Your task to perform on an android device: check the backup settings in the google photos Image 0: 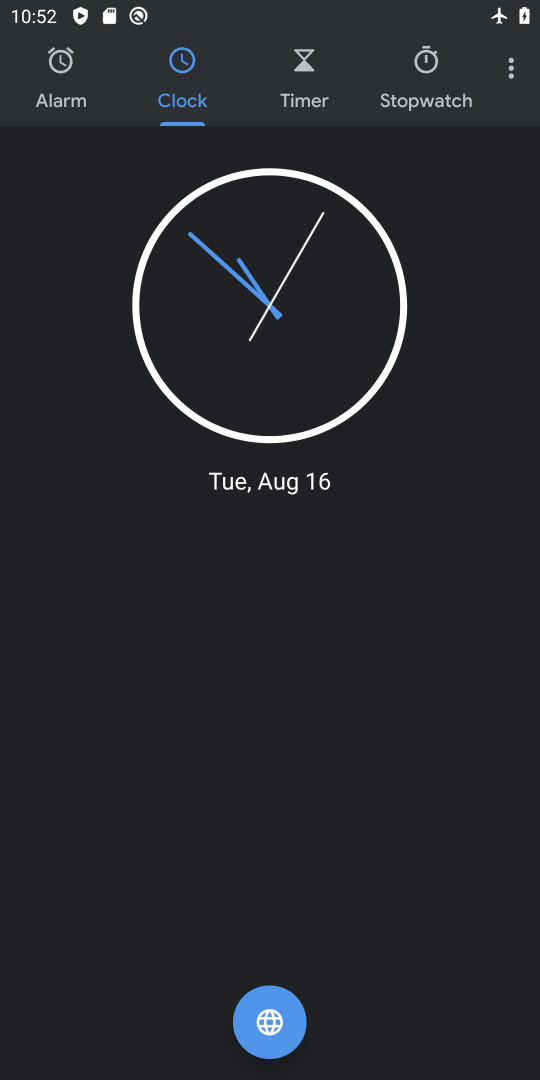
Step 0: press home button
Your task to perform on an android device: check the backup settings in the google photos Image 1: 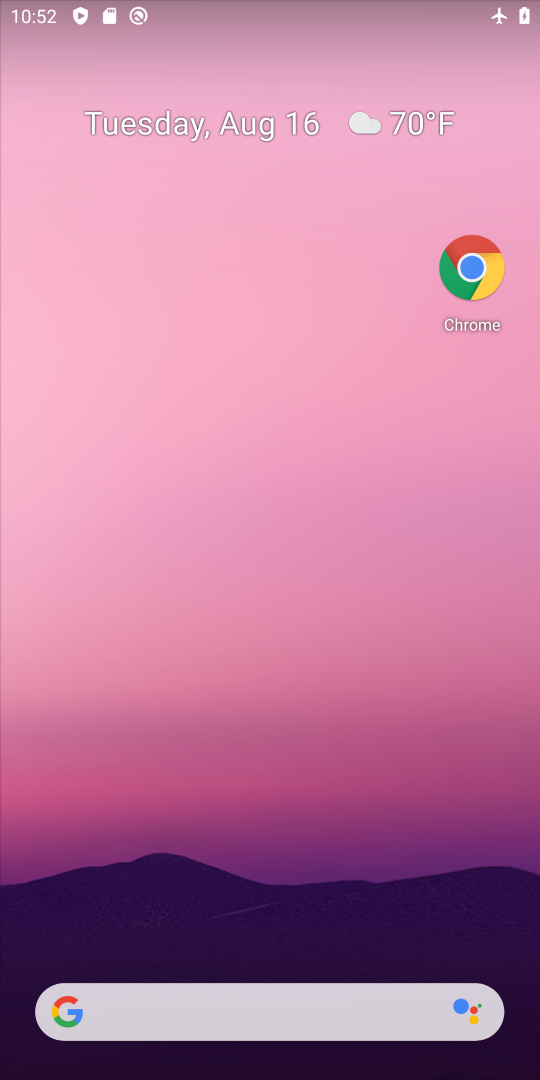
Step 1: drag from (295, 920) to (324, 222)
Your task to perform on an android device: check the backup settings in the google photos Image 2: 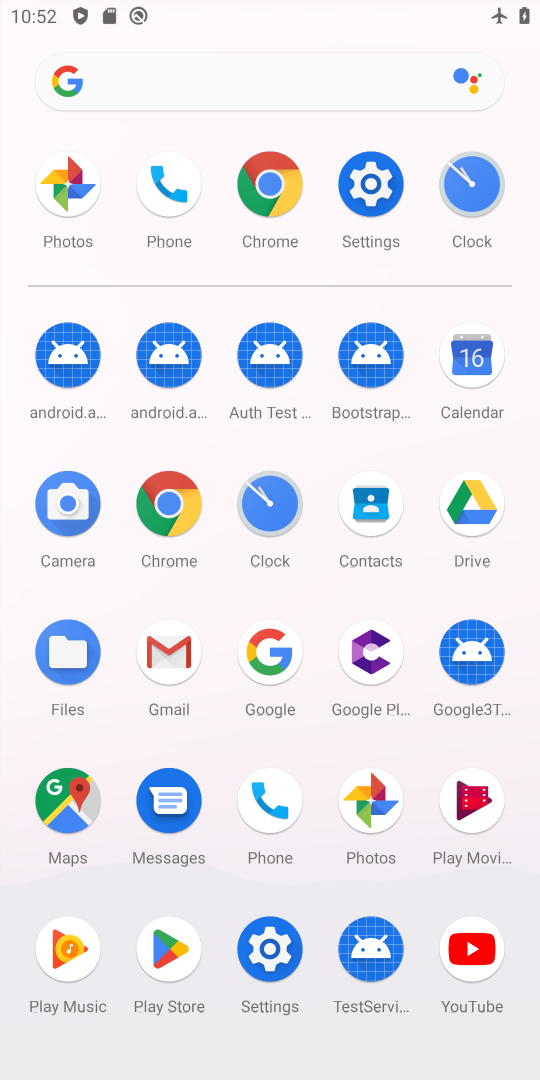
Step 2: click (373, 796)
Your task to perform on an android device: check the backup settings in the google photos Image 3: 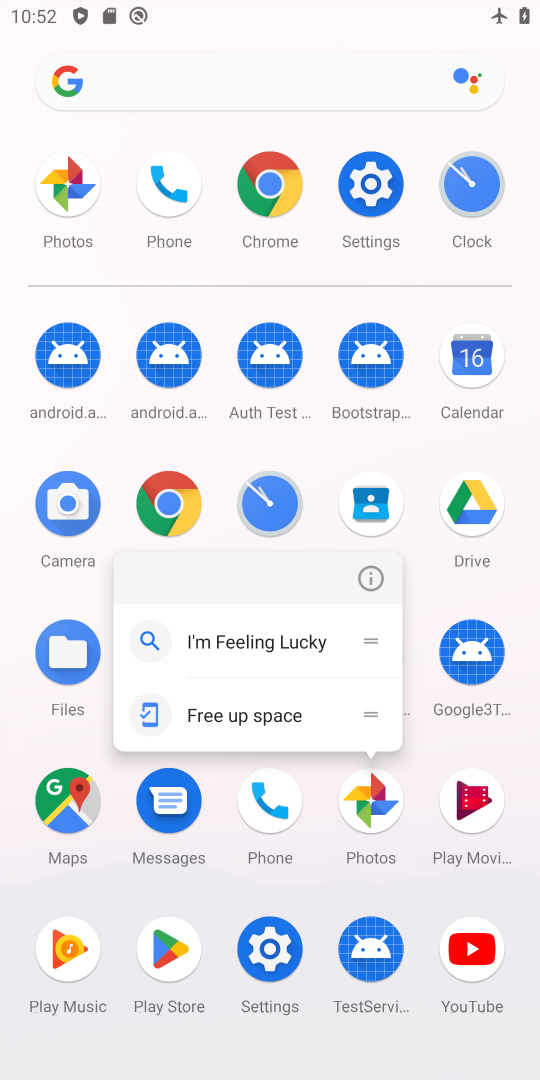
Step 3: click (373, 802)
Your task to perform on an android device: check the backup settings in the google photos Image 4: 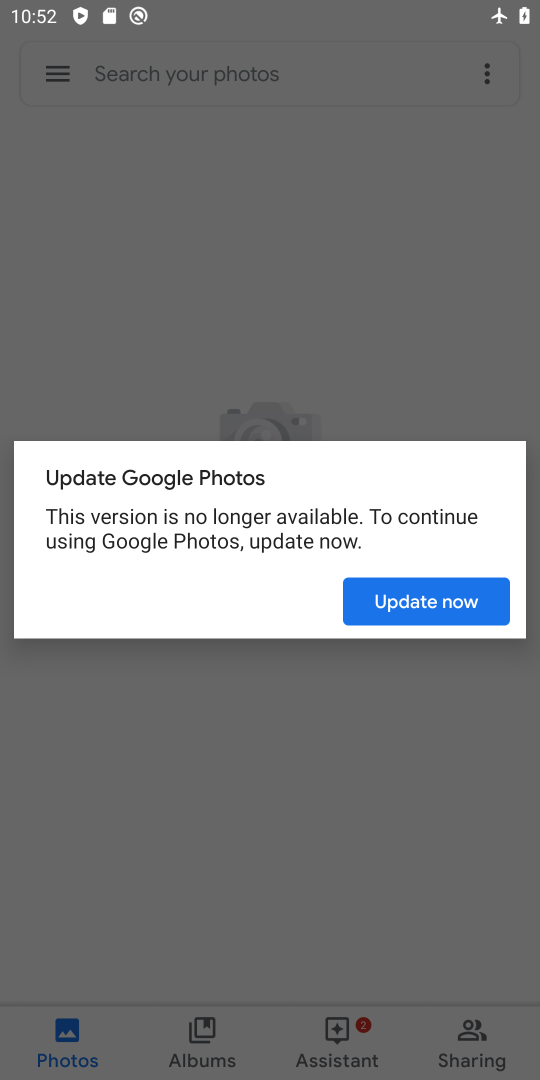
Step 4: press home button
Your task to perform on an android device: check the backup settings in the google photos Image 5: 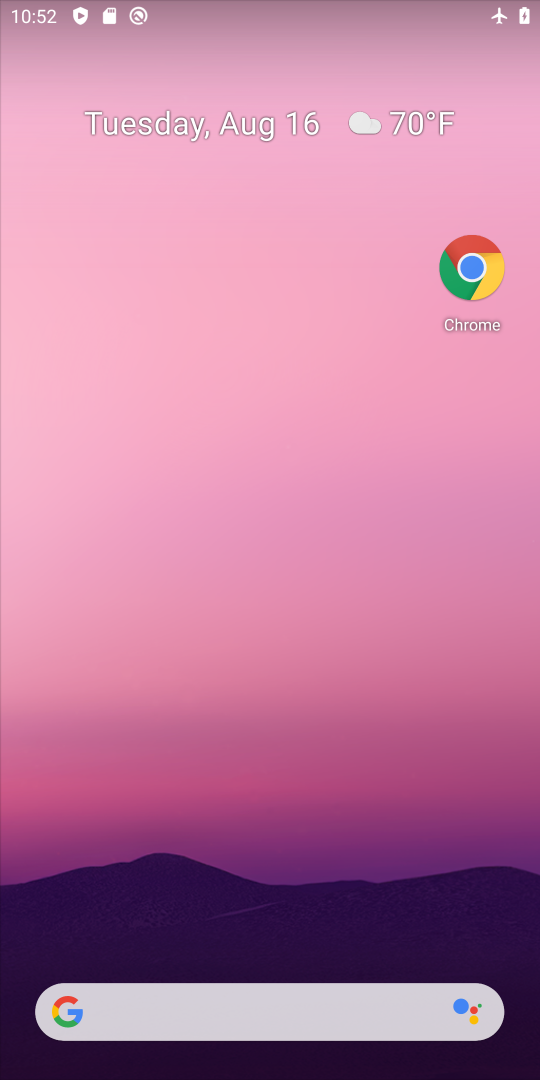
Step 5: drag from (280, 963) to (106, 66)
Your task to perform on an android device: check the backup settings in the google photos Image 6: 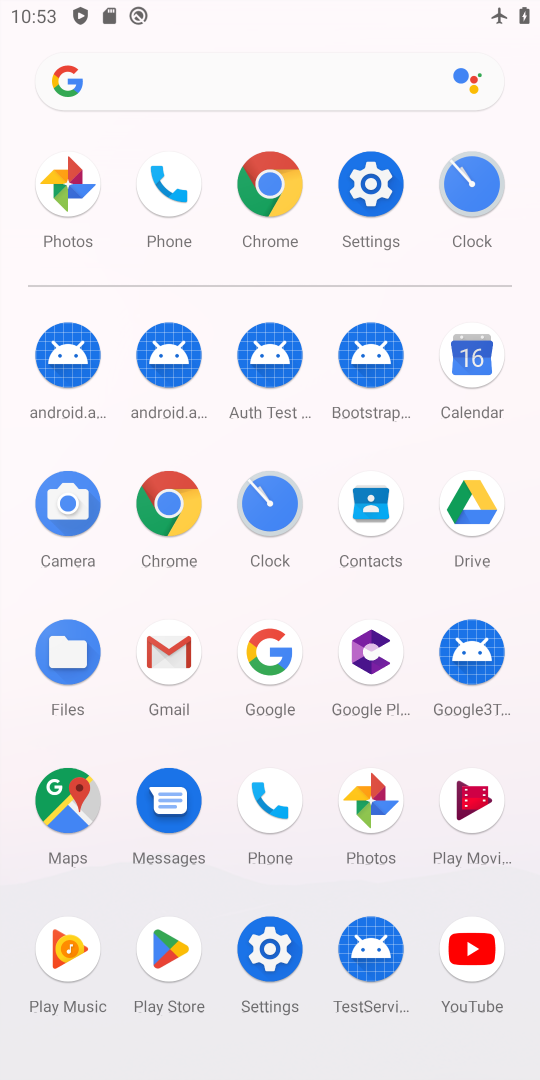
Step 6: click (381, 815)
Your task to perform on an android device: check the backup settings in the google photos Image 7: 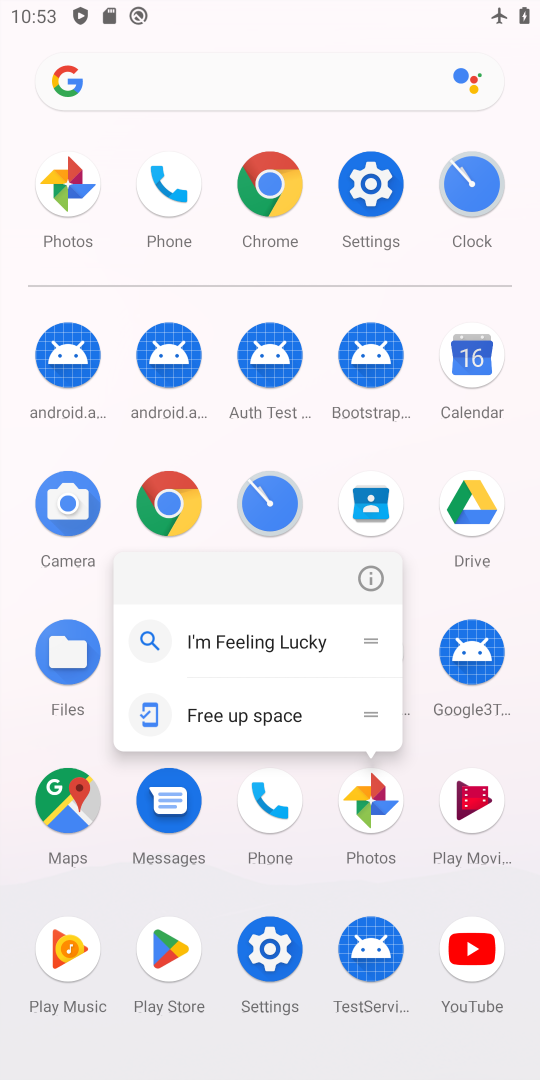
Step 7: click (358, 843)
Your task to perform on an android device: check the backup settings in the google photos Image 8: 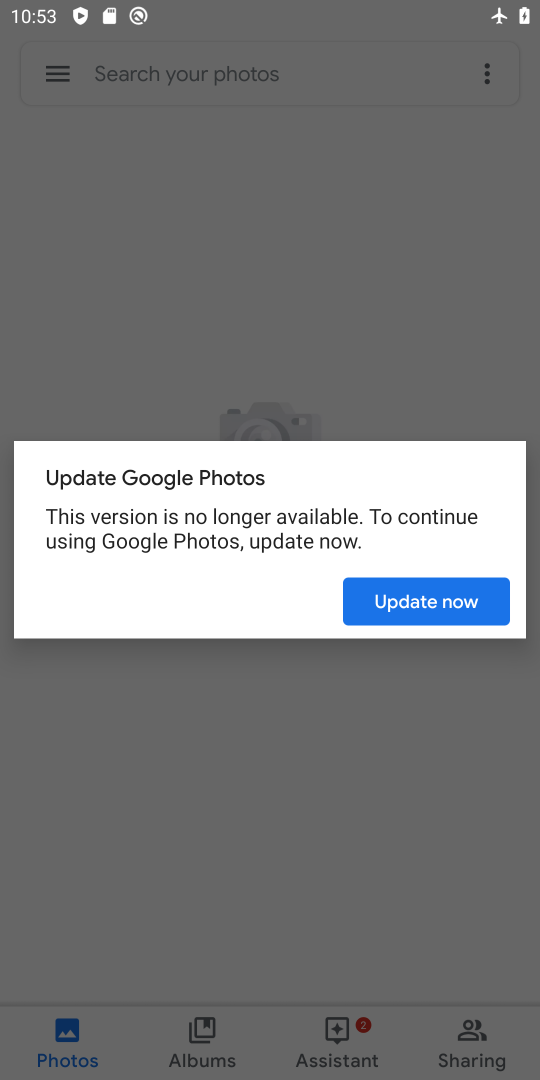
Step 8: task complete